Your task to perform on an android device: see sites visited before in the chrome app Image 0: 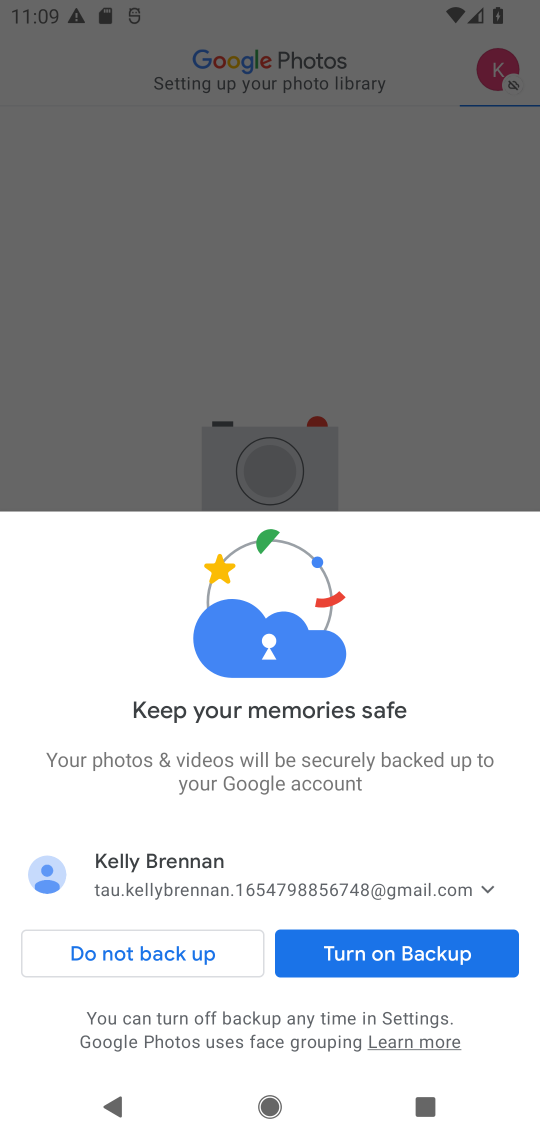
Step 0: press home button
Your task to perform on an android device: see sites visited before in the chrome app Image 1: 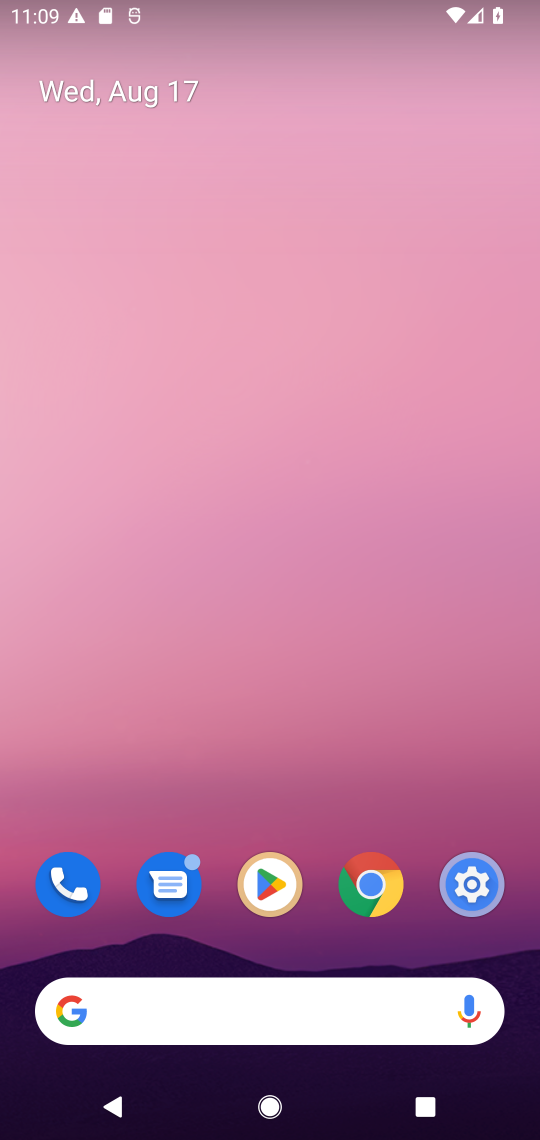
Step 1: click (364, 888)
Your task to perform on an android device: see sites visited before in the chrome app Image 2: 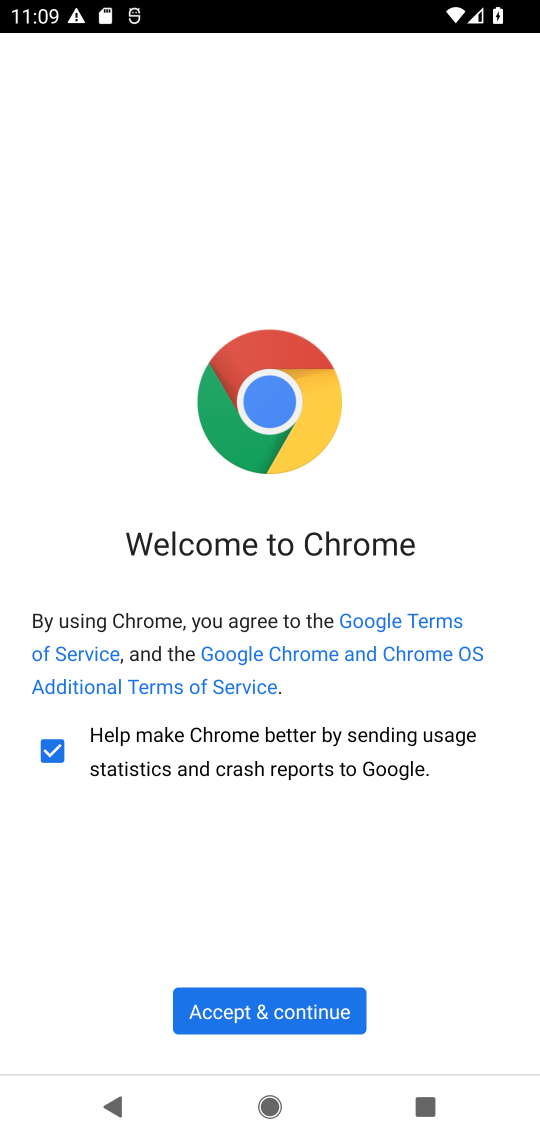
Step 2: click (317, 1004)
Your task to perform on an android device: see sites visited before in the chrome app Image 3: 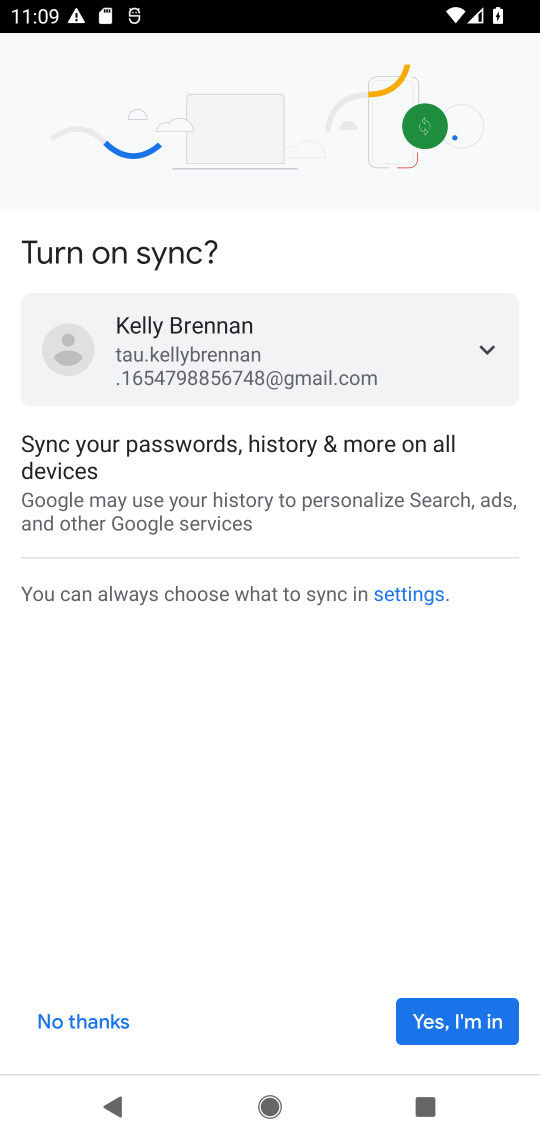
Step 3: click (412, 1017)
Your task to perform on an android device: see sites visited before in the chrome app Image 4: 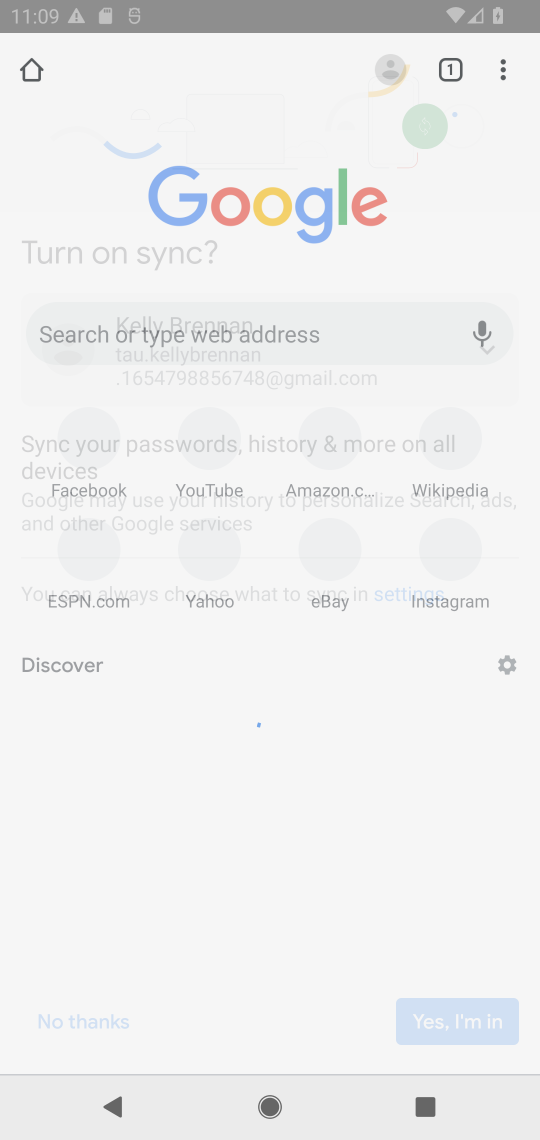
Step 4: click (454, 1033)
Your task to perform on an android device: see sites visited before in the chrome app Image 5: 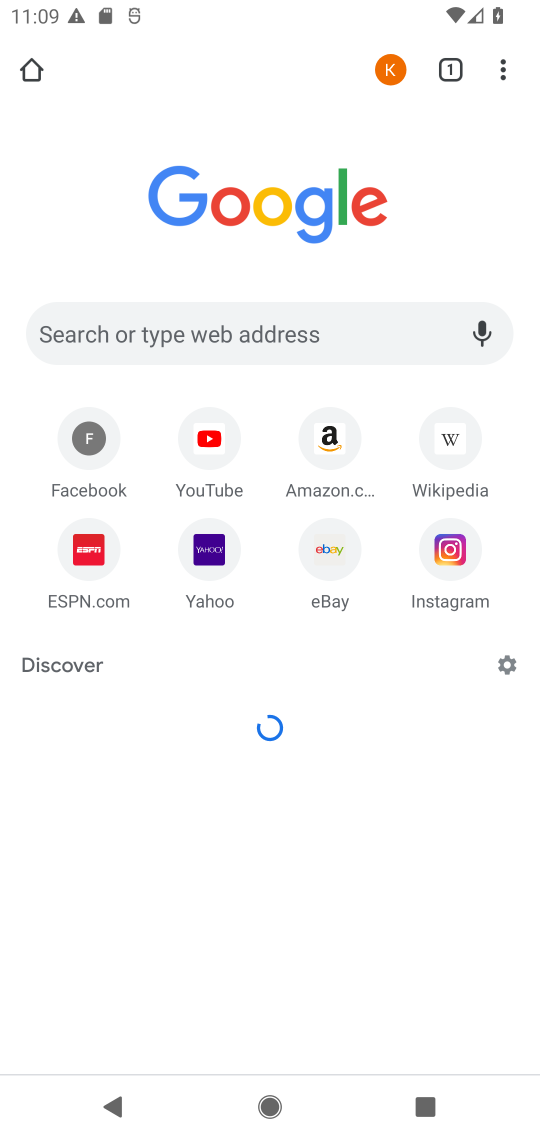
Step 5: task complete